Your task to perform on an android device: remove spam from my inbox in the gmail app Image 0: 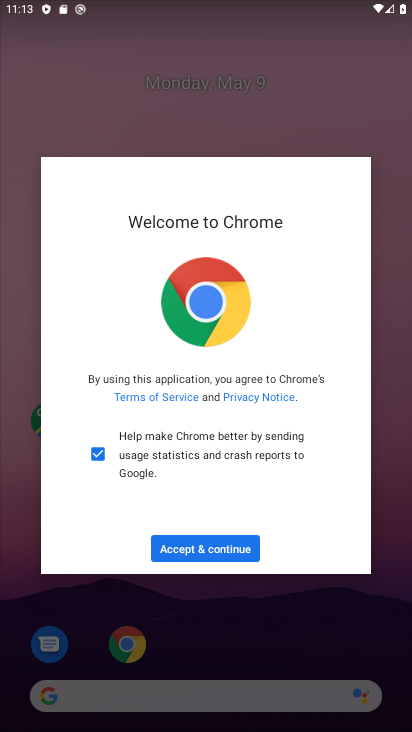
Step 0: press home button
Your task to perform on an android device: remove spam from my inbox in the gmail app Image 1: 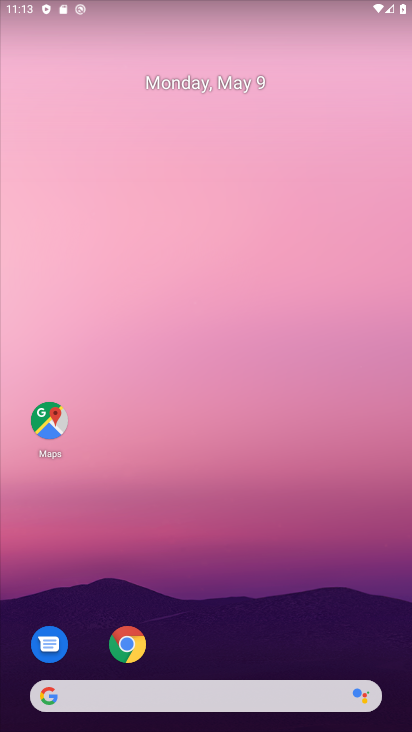
Step 1: drag from (250, 575) to (301, 37)
Your task to perform on an android device: remove spam from my inbox in the gmail app Image 2: 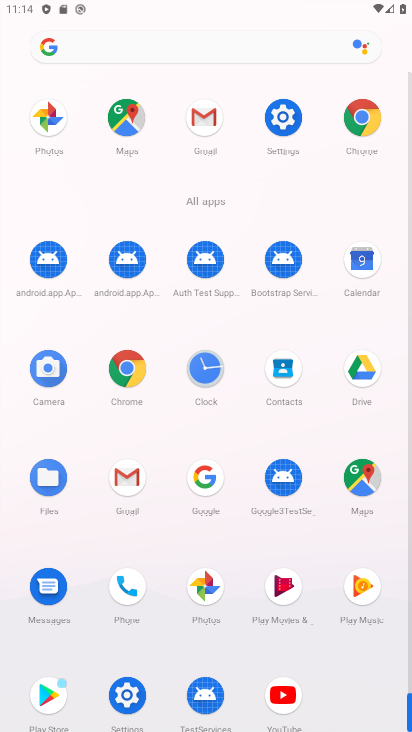
Step 2: click (199, 124)
Your task to perform on an android device: remove spam from my inbox in the gmail app Image 3: 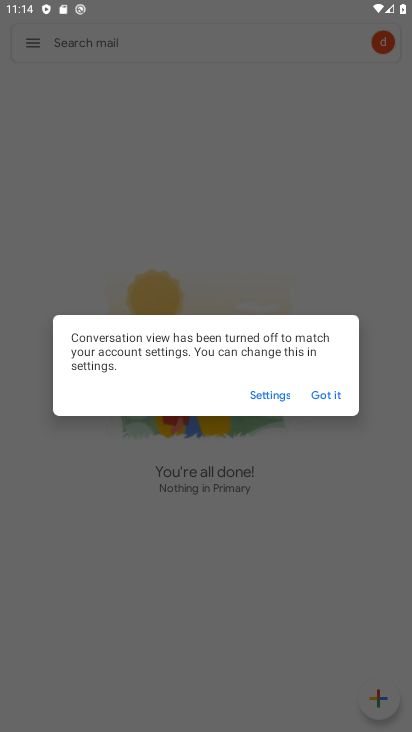
Step 3: click (337, 400)
Your task to perform on an android device: remove spam from my inbox in the gmail app Image 4: 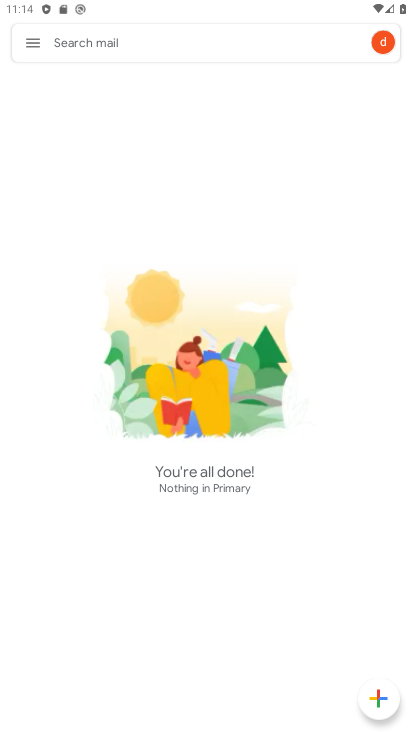
Step 4: click (25, 44)
Your task to perform on an android device: remove spam from my inbox in the gmail app Image 5: 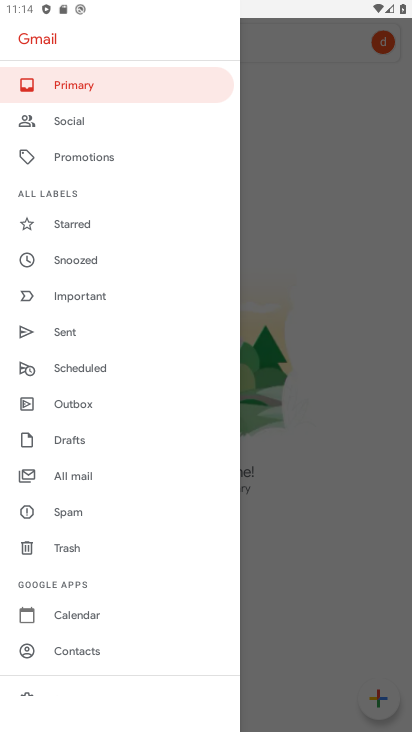
Step 5: drag from (129, 654) to (90, 271)
Your task to perform on an android device: remove spam from my inbox in the gmail app Image 6: 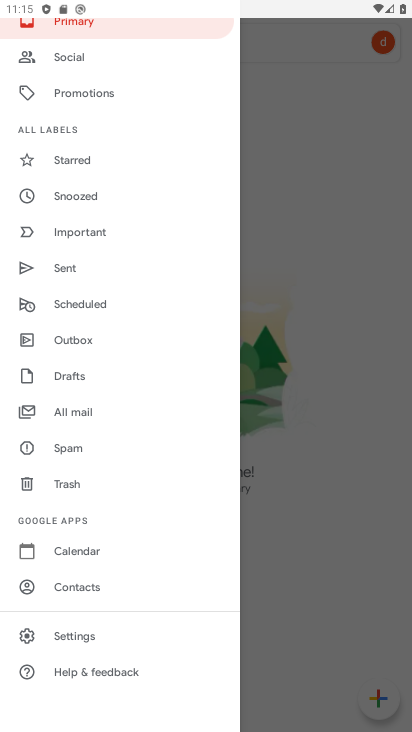
Step 6: click (53, 452)
Your task to perform on an android device: remove spam from my inbox in the gmail app Image 7: 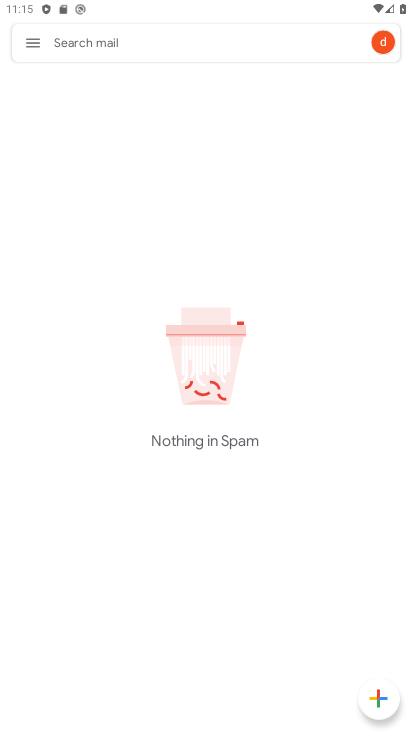
Step 7: task complete